Your task to perform on an android device: Go to Google maps Image 0: 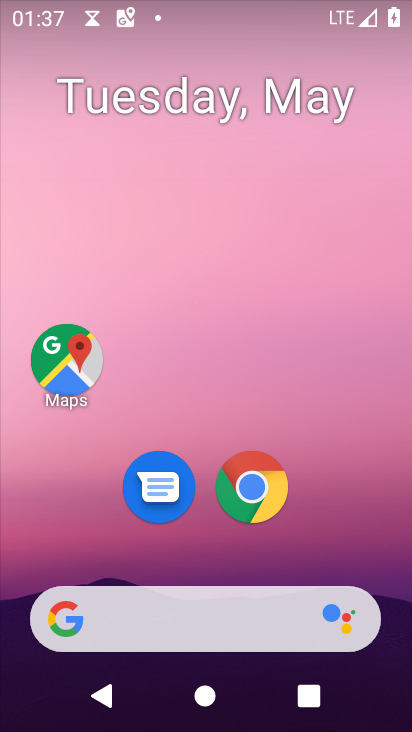
Step 0: click (49, 357)
Your task to perform on an android device: Go to Google maps Image 1: 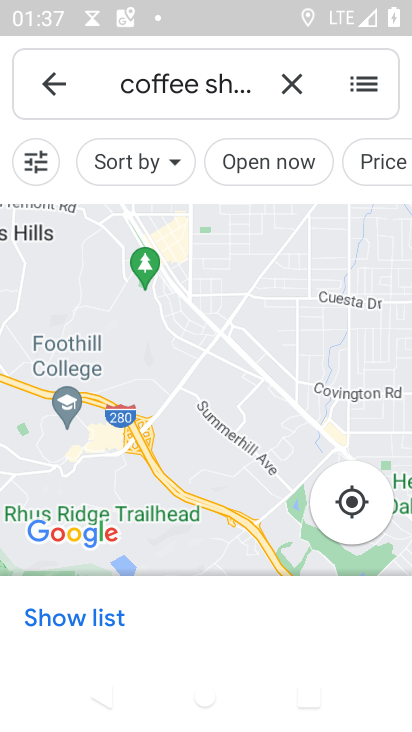
Step 1: drag from (100, 497) to (164, 227)
Your task to perform on an android device: Go to Google maps Image 2: 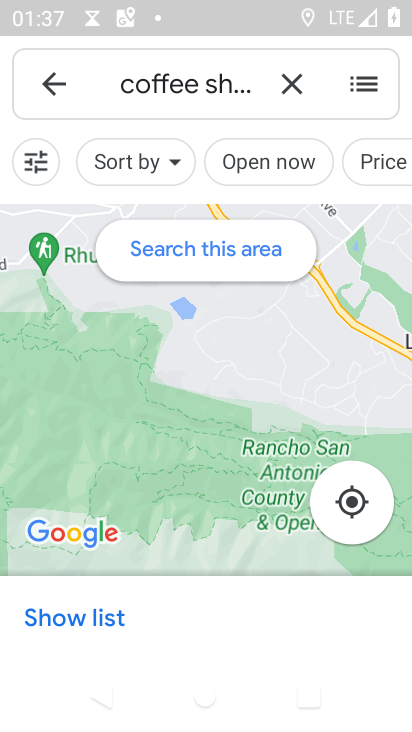
Step 2: click (69, 92)
Your task to perform on an android device: Go to Google maps Image 3: 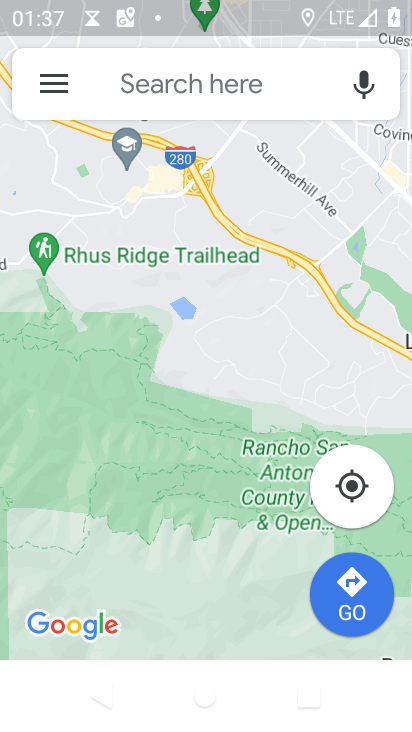
Step 3: drag from (191, 521) to (192, 223)
Your task to perform on an android device: Go to Google maps Image 4: 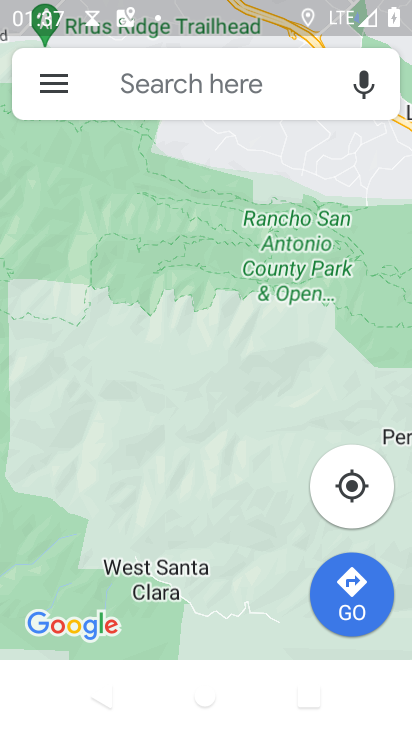
Step 4: drag from (192, 205) to (276, 551)
Your task to perform on an android device: Go to Google maps Image 5: 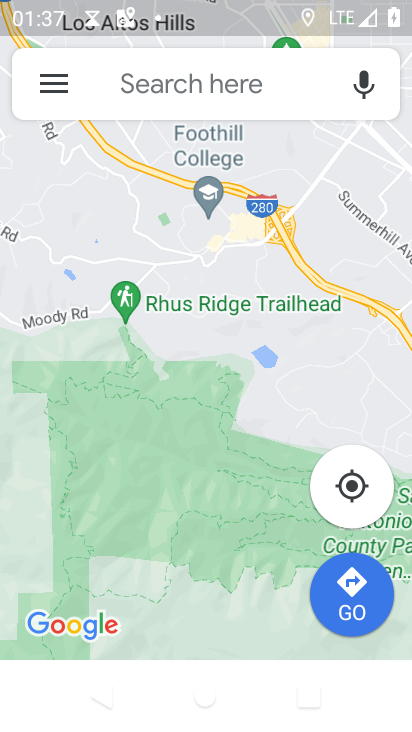
Step 5: drag from (186, 256) to (191, 696)
Your task to perform on an android device: Go to Google maps Image 6: 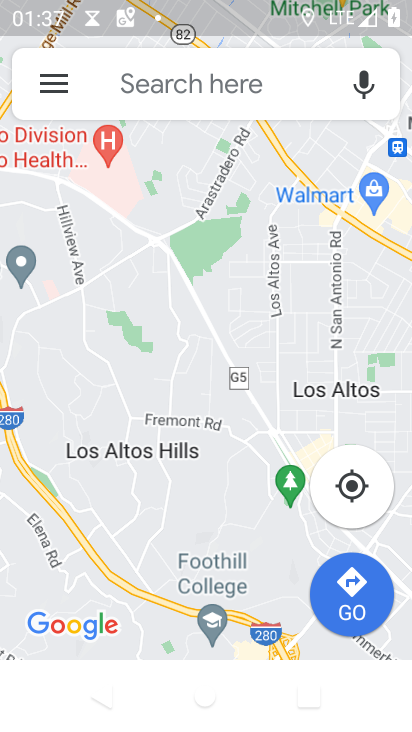
Step 6: click (132, 88)
Your task to perform on an android device: Go to Google maps Image 7: 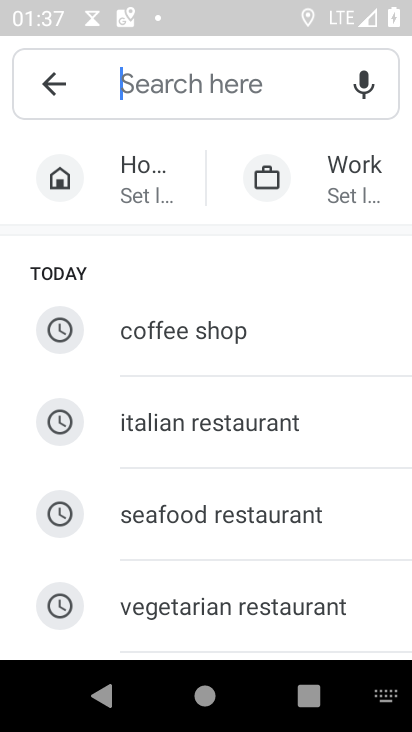
Step 7: click (40, 88)
Your task to perform on an android device: Go to Google maps Image 8: 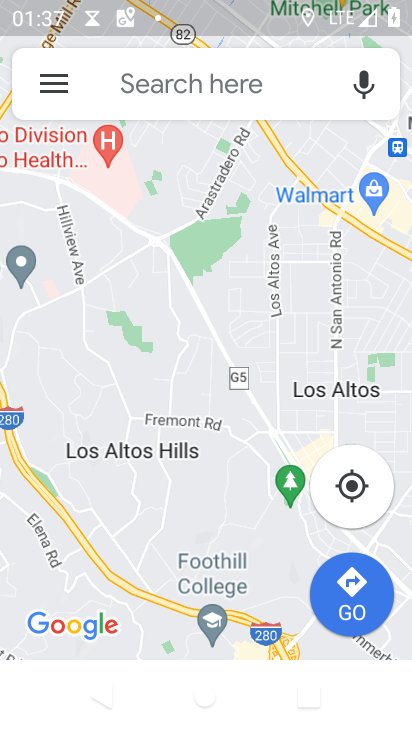
Step 8: click (40, 88)
Your task to perform on an android device: Go to Google maps Image 9: 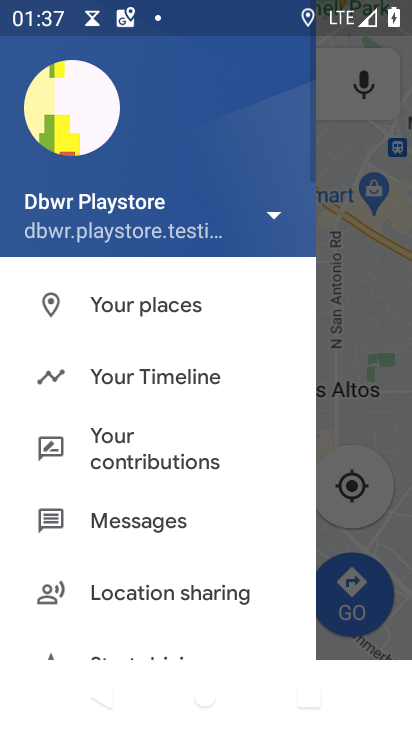
Step 9: click (364, 250)
Your task to perform on an android device: Go to Google maps Image 10: 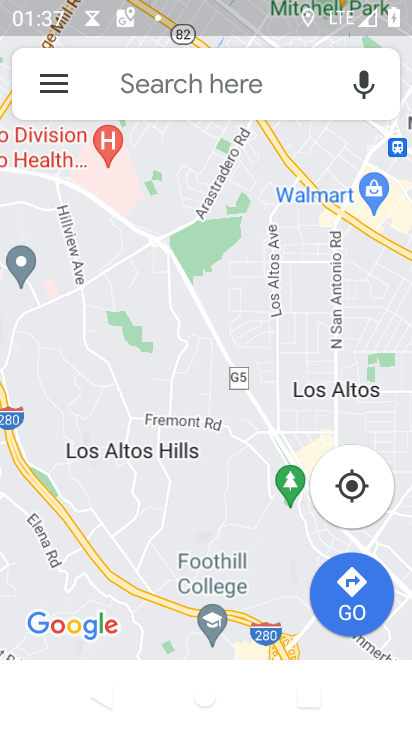
Step 10: task complete